Your task to perform on an android device: check android version Image 0: 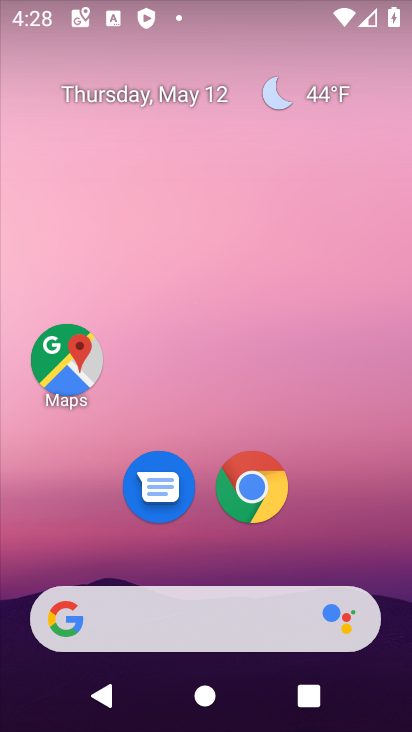
Step 0: drag from (328, 538) to (375, 39)
Your task to perform on an android device: check android version Image 1: 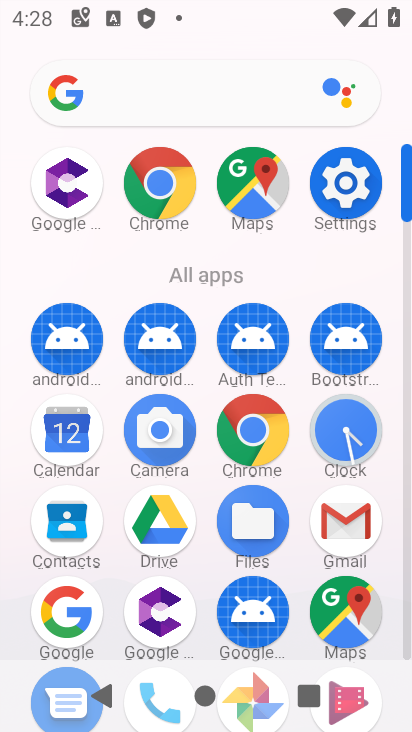
Step 1: click (334, 164)
Your task to perform on an android device: check android version Image 2: 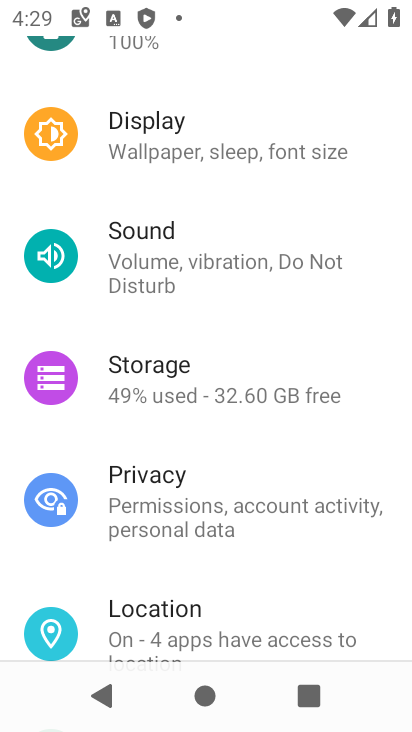
Step 2: drag from (217, 575) to (294, 140)
Your task to perform on an android device: check android version Image 3: 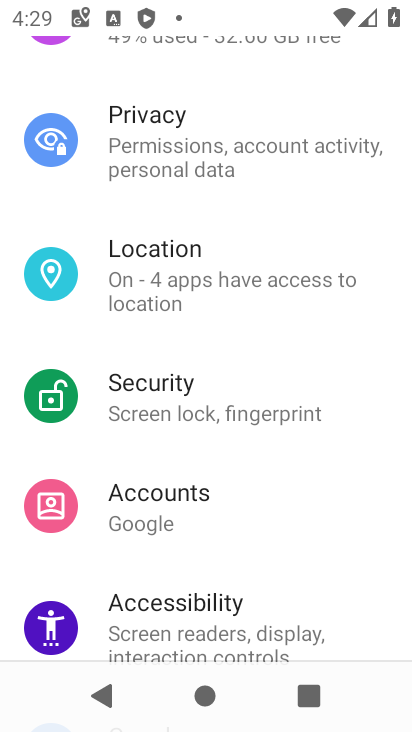
Step 3: drag from (238, 531) to (230, 165)
Your task to perform on an android device: check android version Image 4: 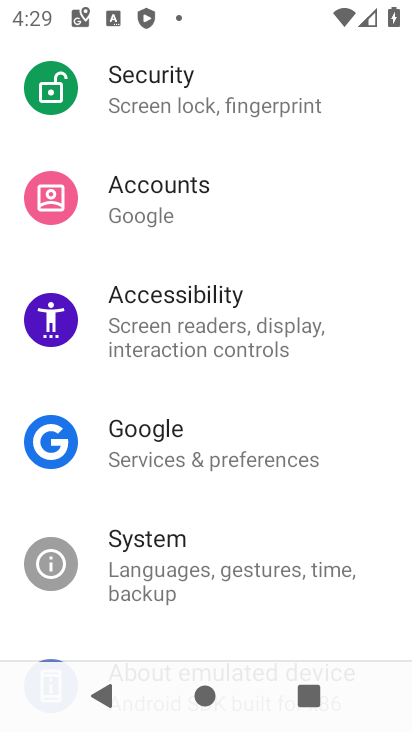
Step 4: drag from (228, 601) to (251, 228)
Your task to perform on an android device: check android version Image 5: 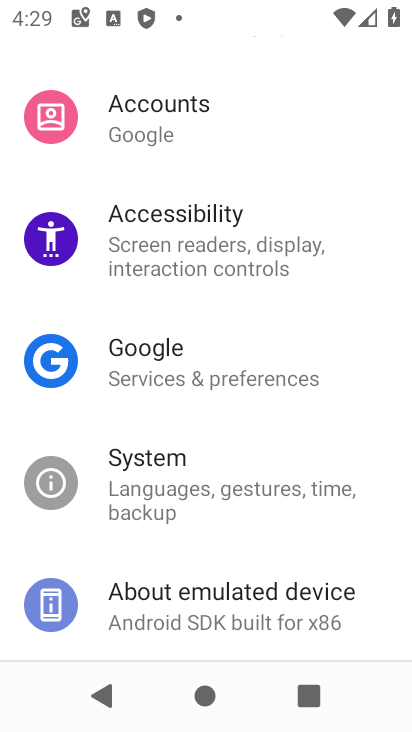
Step 5: click (228, 594)
Your task to perform on an android device: check android version Image 6: 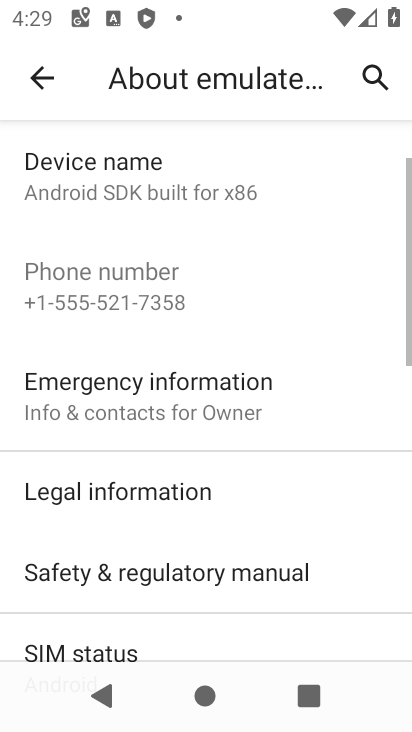
Step 6: drag from (228, 593) to (239, 251)
Your task to perform on an android device: check android version Image 7: 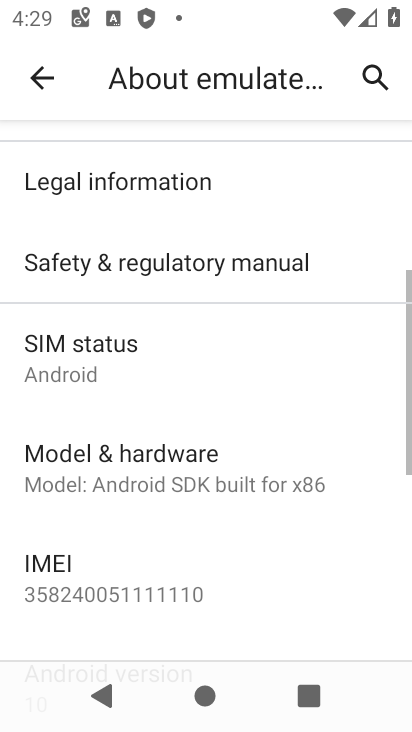
Step 7: drag from (217, 547) to (214, 239)
Your task to perform on an android device: check android version Image 8: 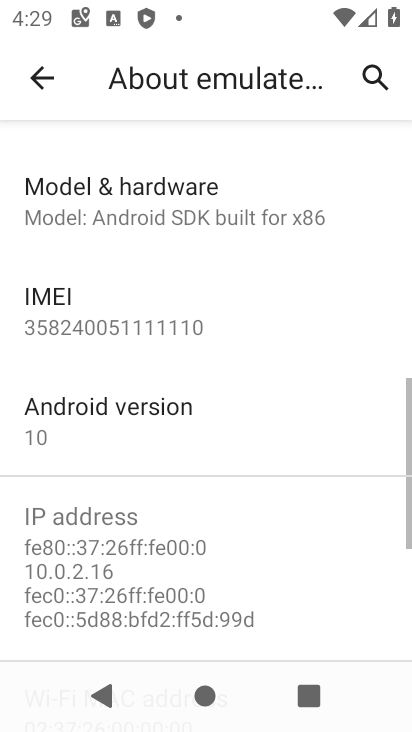
Step 8: click (221, 398)
Your task to perform on an android device: check android version Image 9: 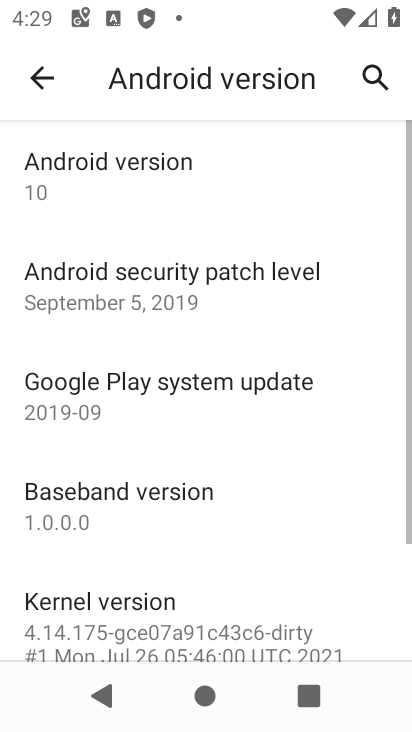
Step 9: task complete